Your task to perform on an android device: turn on notifications settings in the gmail app Image 0: 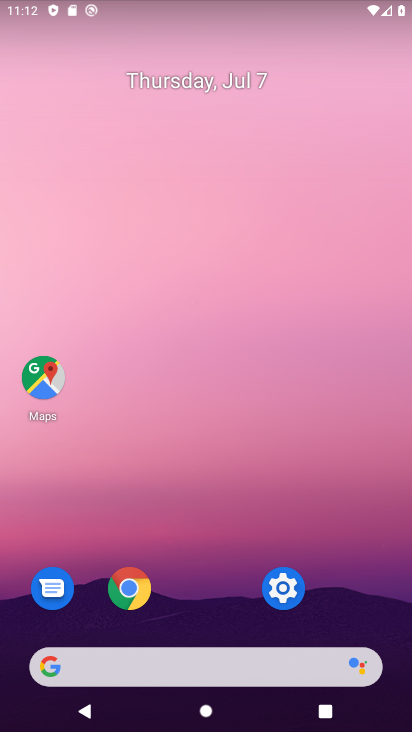
Step 0: press home button
Your task to perform on an android device: turn on notifications settings in the gmail app Image 1: 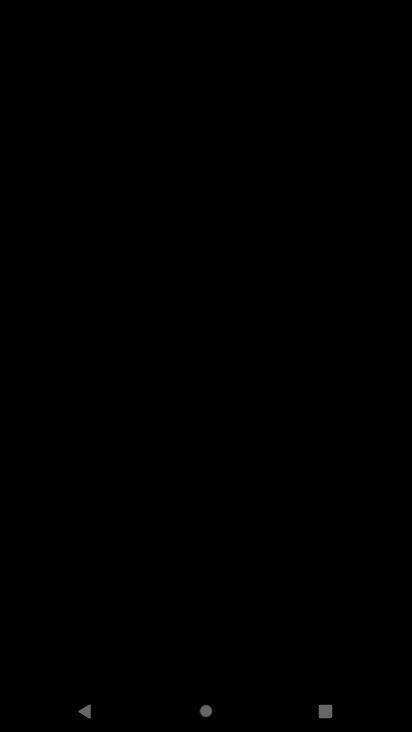
Step 1: press home button
Your task to perform on an android device: turn on notifications settings in the gmail app Image 2: 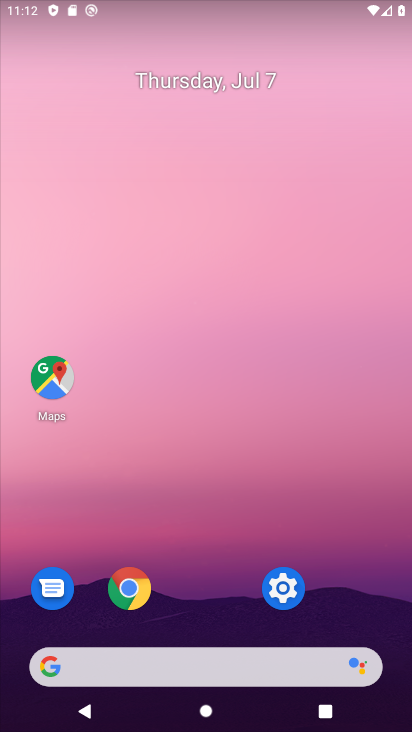
Step 2: click (267, 597)
Your task to perform on an android device: turn on notifications settings in the gmail app Image 3: 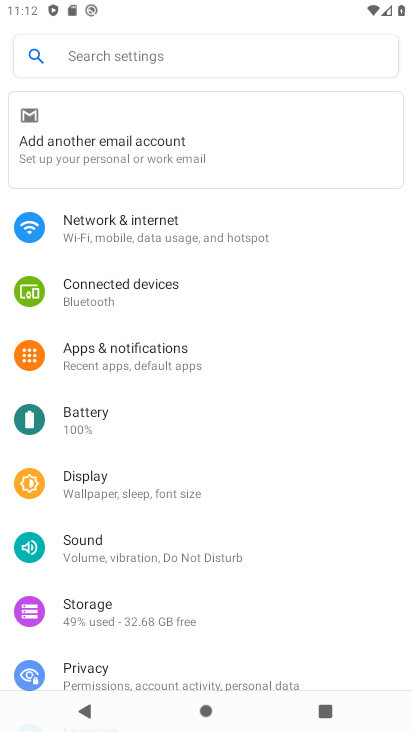
Step 3: click (121, 56)
Your task to perform on an android device: turn on notifications settings in the gmail app Image 4: 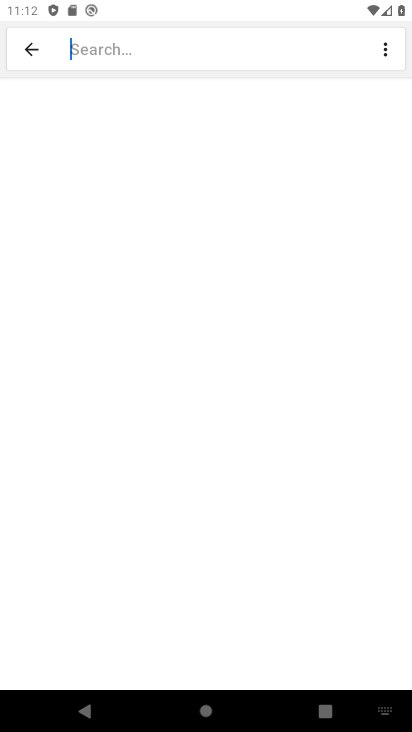
Step 4: click (389, 711)
Your task to perform on an android device: turn on notifications settings in the gmail app Image 5: 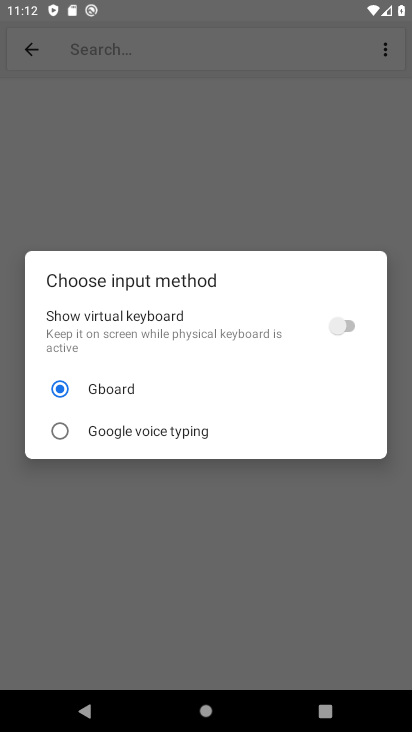
Step 5: click (339, 327)
Your task to perform on an android device: turn on notifications settings in the gmail app Image 6: 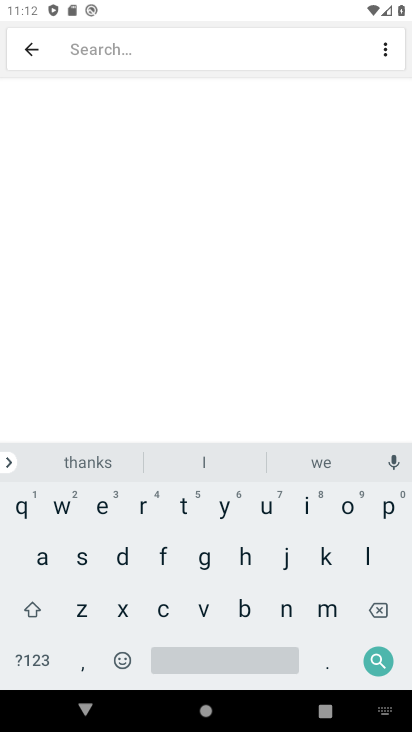
Step 6: click (85, 547)
Your task to perform on an android device: turn on notifications settings in the gmail app Image 7: 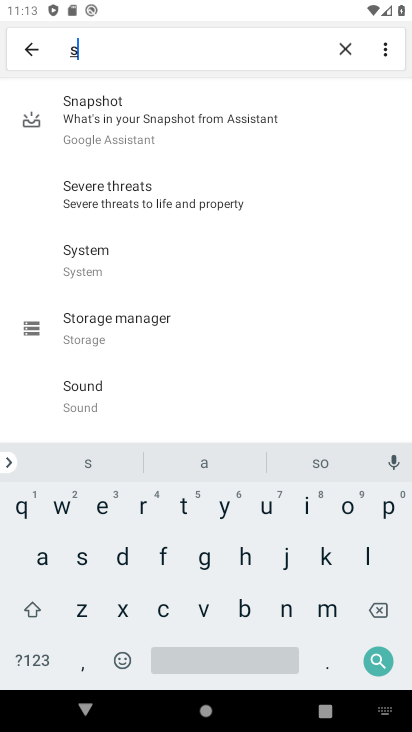
Step 7: click (306, 508)
Your task to perform on an android device: turn on notifications settings in the gmail app Image 8: 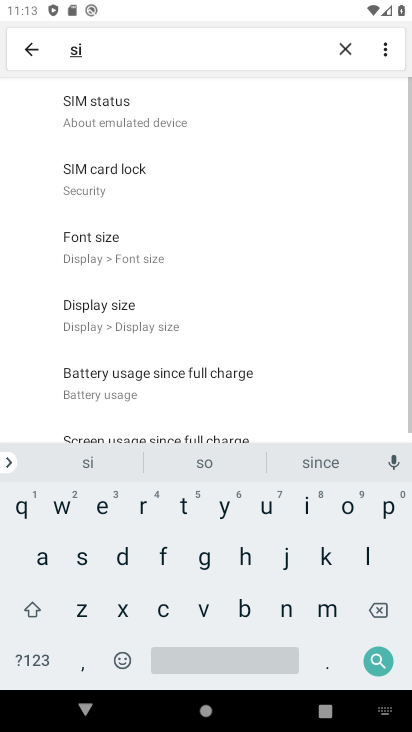
Step 8: click (72, 612)
Your task to perform on an android device: turn on notifications settings in the gmail app Image 9: 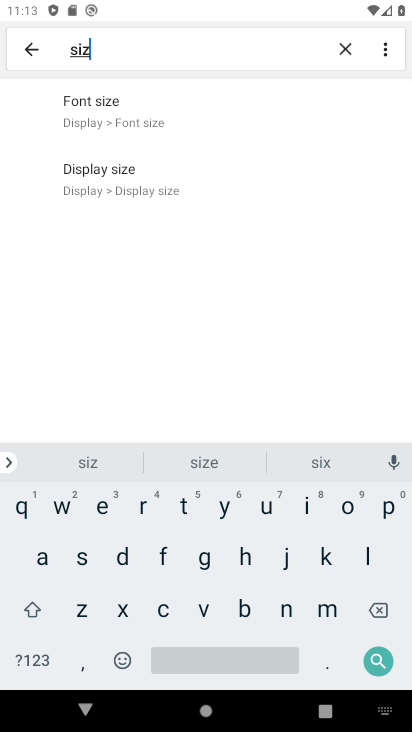
Step 9: click (170, 109)
Your task to perform on an android device: turn on notifications settings in the gmail app Image 10: 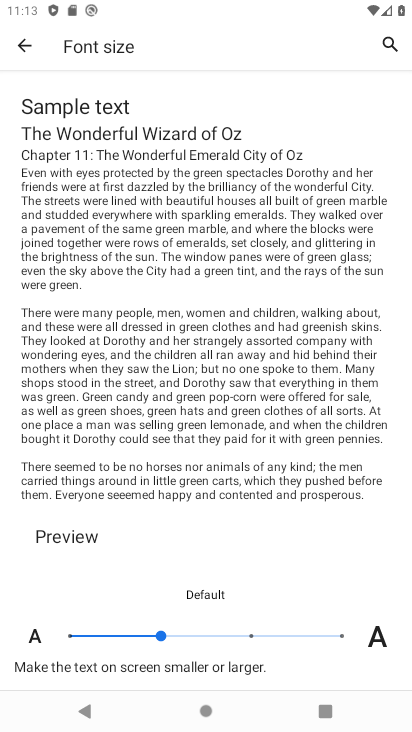
Step 10: click (346, 639)
Your task to perform on an android device: turn on notifications settings in the gmail app Image 11: 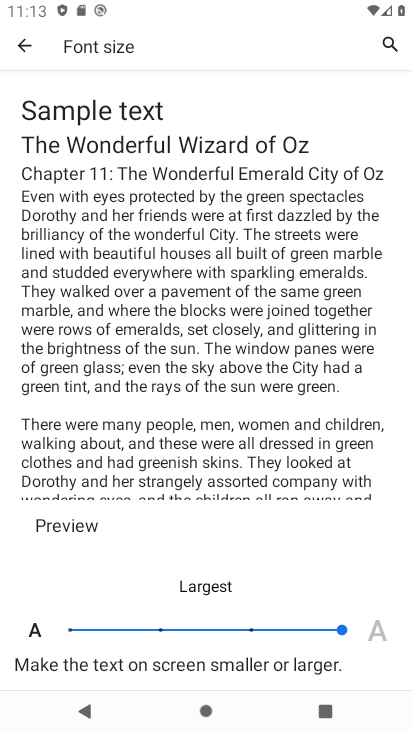
Step 11: task complete